Your task to perform on an android device: Go to settings Image 0: 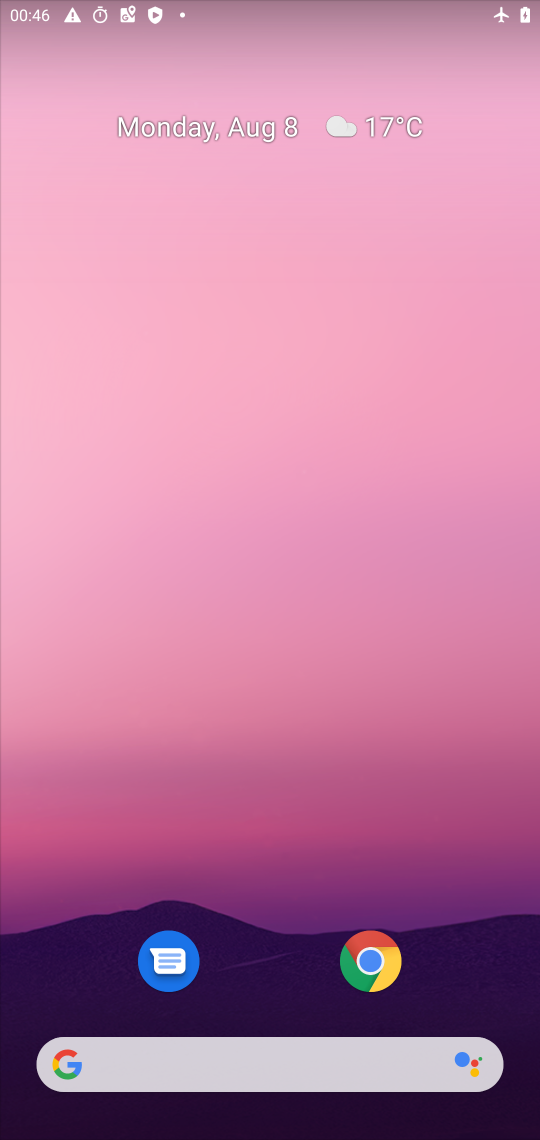
Step 0: drag from (397, 1055) to (430, 0)
Your task to perform on an android device: Go to settings Image 1: 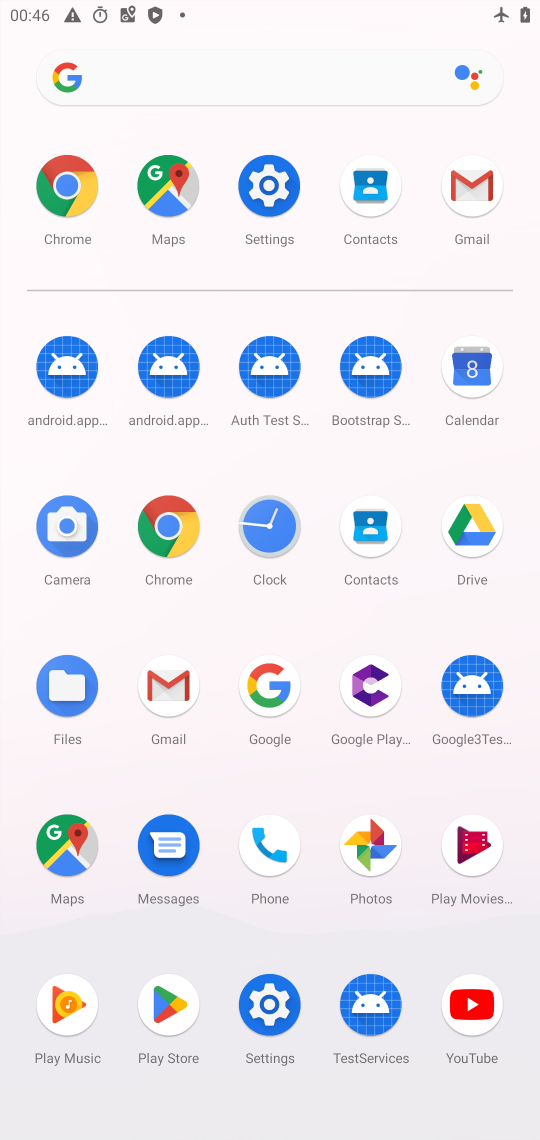
Step 1: click (257, 190)
Your task to perform on an android device: Go to settings Image 2: 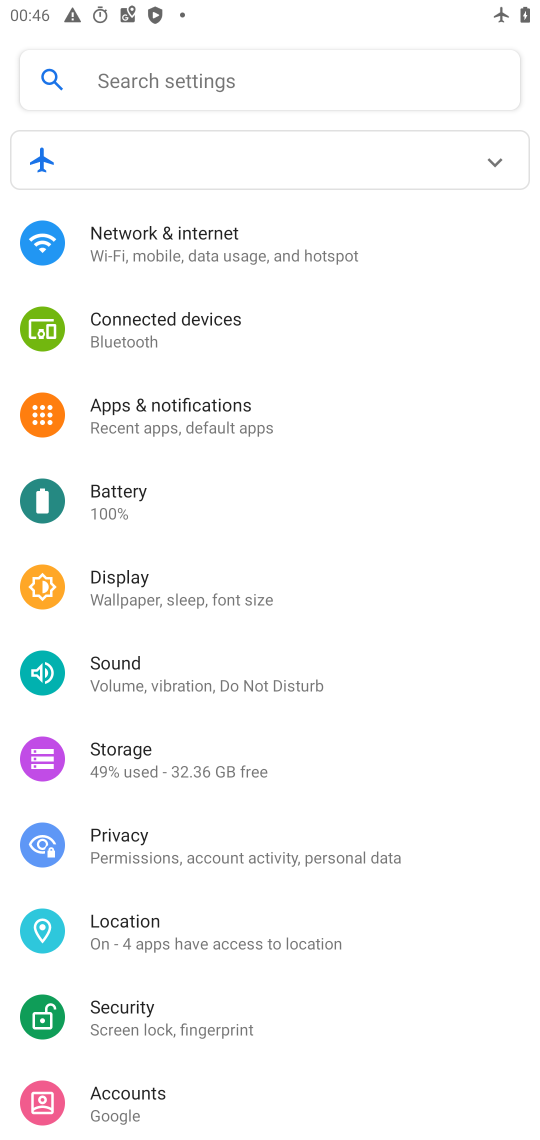
Step 2: task complete